Your task to perform on an android device: turn smart compose on in the gmail app Image 0: 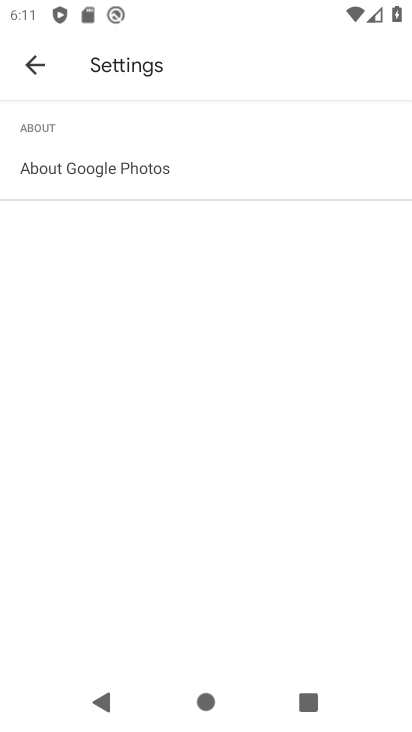
Step 0: press home button
Your task to perform on an android device: turn smart compose on in the gmail app Image 1: 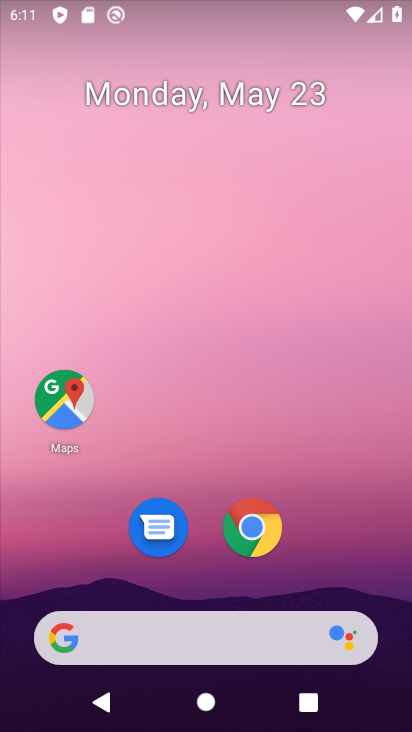
Step 1: drag from (302, 569) to (325, 80)
Your task to perform on an android device: turn smart compose on in the gmail app Image 2: 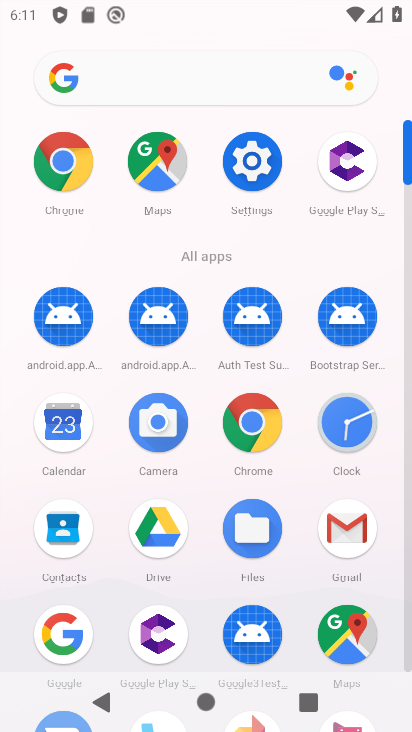
Step 2: click (350, 528)
Your task to perform on an android device: turn smart compose on in the gmail app Image 3: 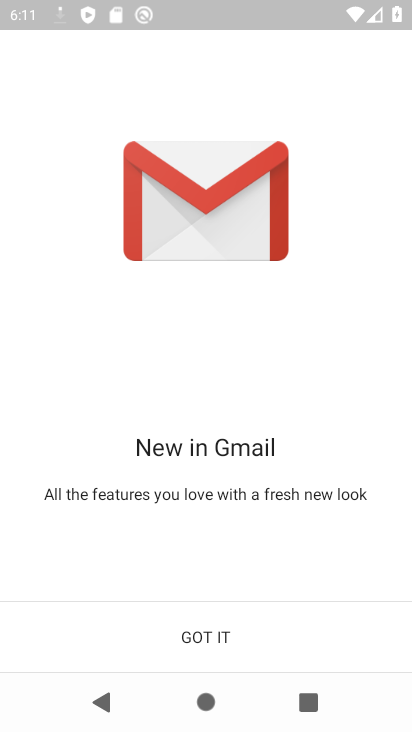
Step 3: click (225, 641)
Your task to perform on an android device: turn smart compose on in the gmail app Image 4: 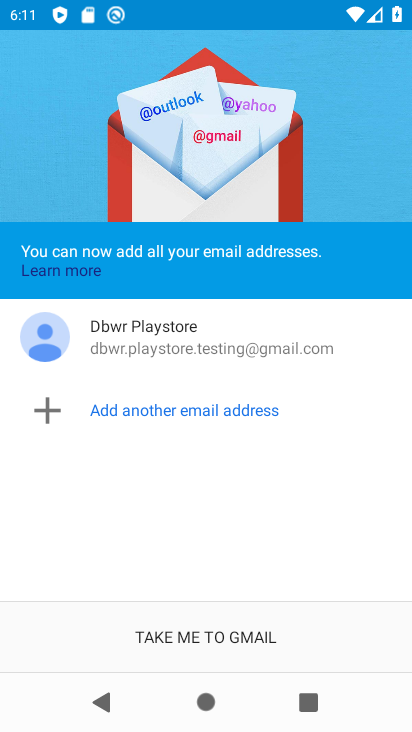
Step 4: click (225, 641)
Your task to perform on an android device: turn smart compose on in the gmail app Image 5: 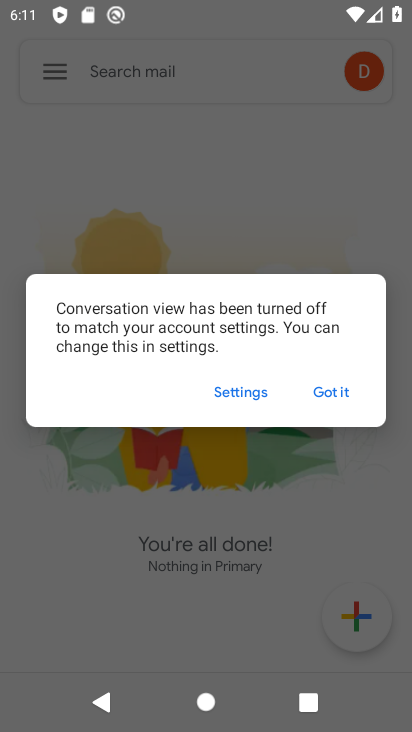
Step 5: click (374, 377)
Your task to perform on an android device: turn smart compose on in the gmail app Image 6: 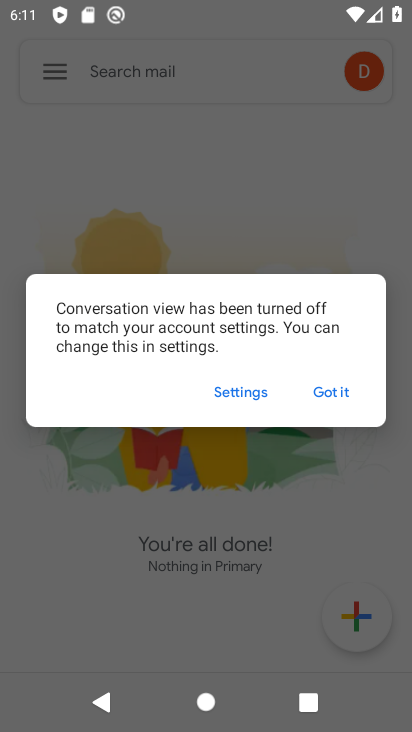
Step 6: click (333, 400)
Your task to perform on an android device: turn smart compose on in the gmail app Image 7: 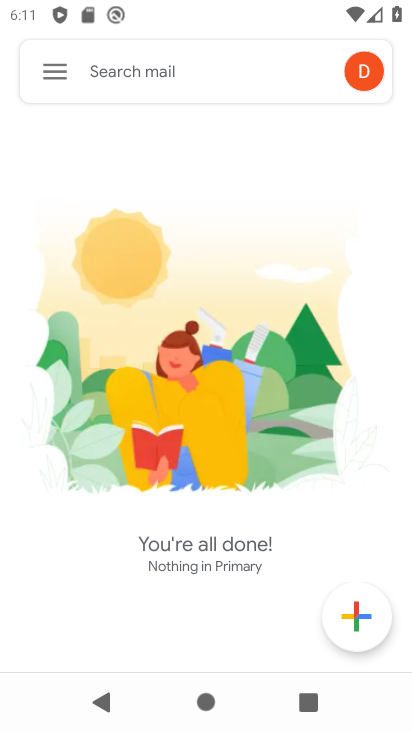
Step 7: click (49, 76)
Your task to perform on an android device: turn smart compose on in the gmail app Image 8: 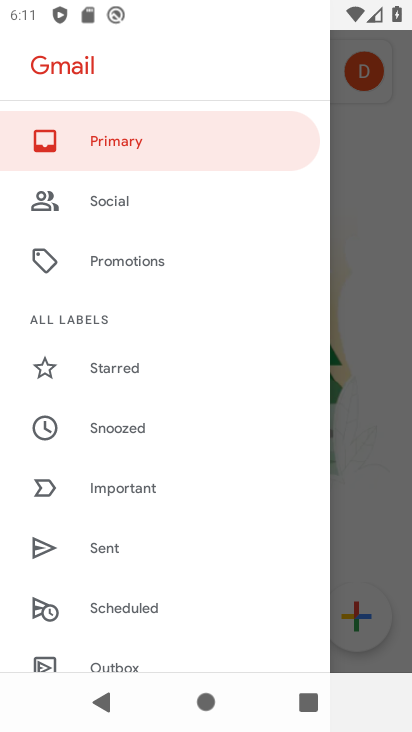
Step 8: drag from (224, 520) to (211, 151)
Your task to perform on an android device: turn smart compose on in the gmail app Image 9: 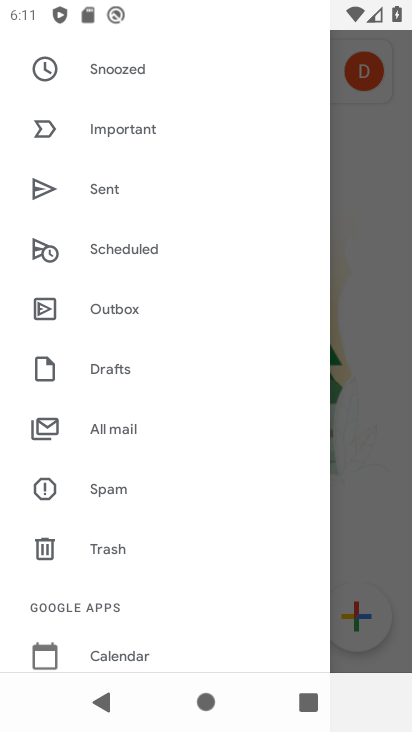
Step 9: drag from (173, 421) to (219, 154)
Your task to perform on an android device: turn smart compose on in the gmail app Image 10: 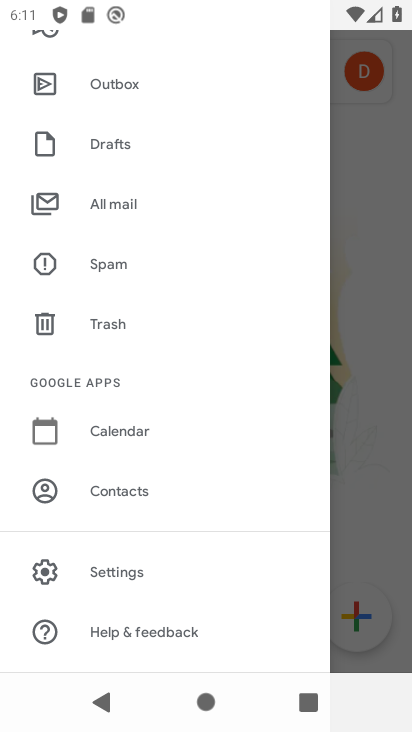
Step 10: click (120, 567)
Your task to perform on an android device: turn smart compose on in the gmail app Image 11: 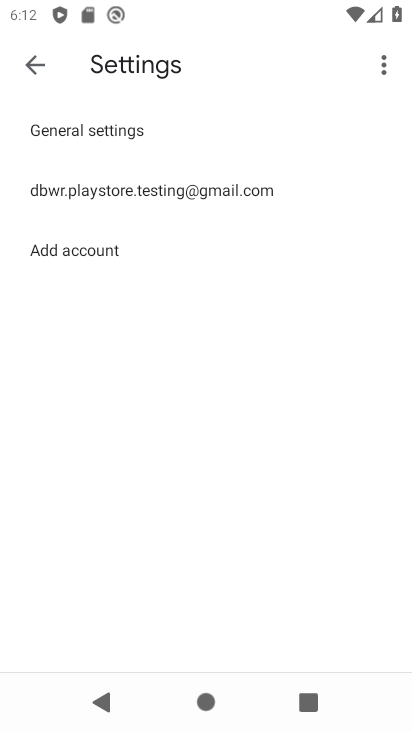
Step 11: click (244, 191)
Your task to perform on an android device: turn smart compose on in the gmail app Image 12: 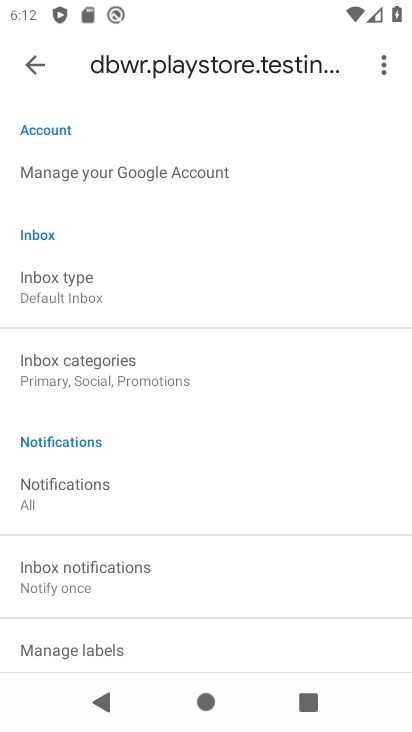
Step 12: task complete